Your task to perform on an android device: Empty the shopping cart on target.com. Search for apple airpods on target.com, select the first entry, and add it to the cart. Image 0: 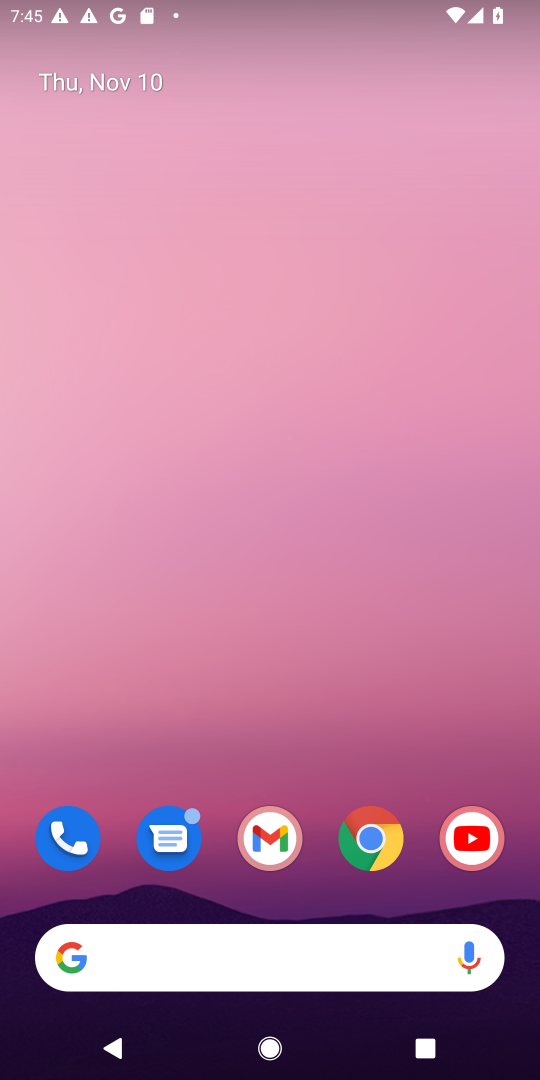
Step 0: drag from (338, 910) to (398, 205)
Your task to perform on an android device: Empty the shopping cart on target.com. Search for apple airpods on target.com, select the first entry, and add it to the cart. Image 1: 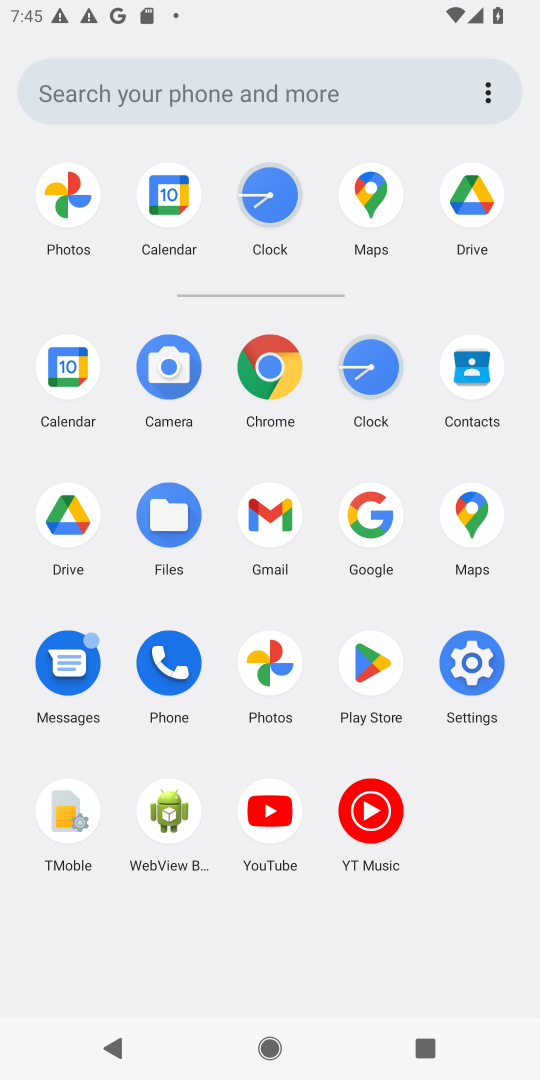
Step 1: click (266, 363)
Your task to perform on an android device: Empty the shopping cart on target.com. Search for apple airpods on target.com, select the first entry, and add it to the cart. Image 2: 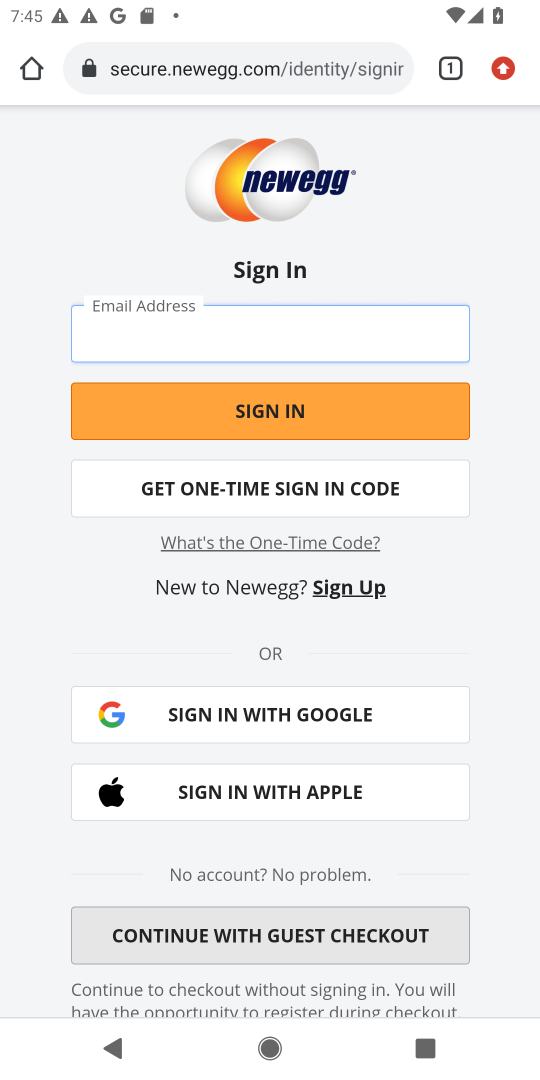
Step 2: click (219, 72)
Your task to perform on an android device: Empty the shopping cart on target.com. Search for apple airpods on target.com, select the first entry, and add it to the cart. Image 3: 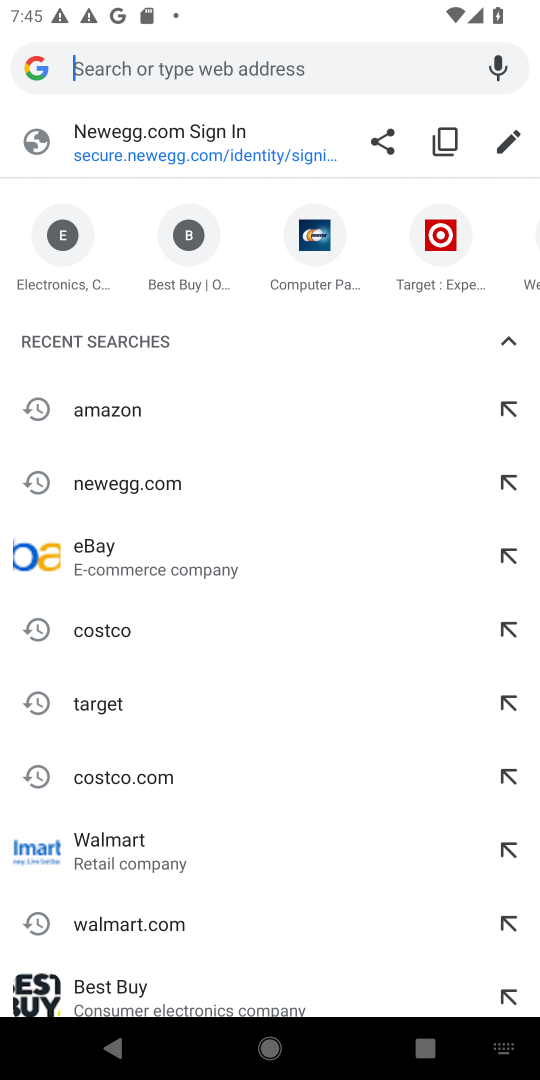
Step 3: type "target.com"
Your task to perform on an android device: Empty the shopping cart on target.com. Search for apple airpods on target.com, select the first entry, and add it to the cart. Image 4: 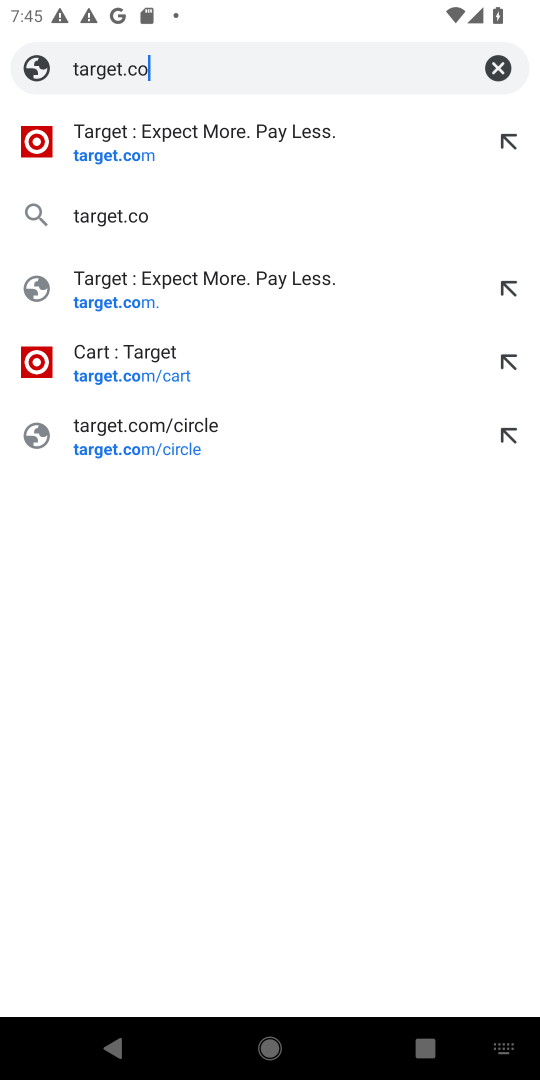
Step 4: press enter
Your task to perform on an android device: Empty the shopping cart on target.com. Search for apple airpods on target.com, select the first entry, and add it to the cart. Image 5: 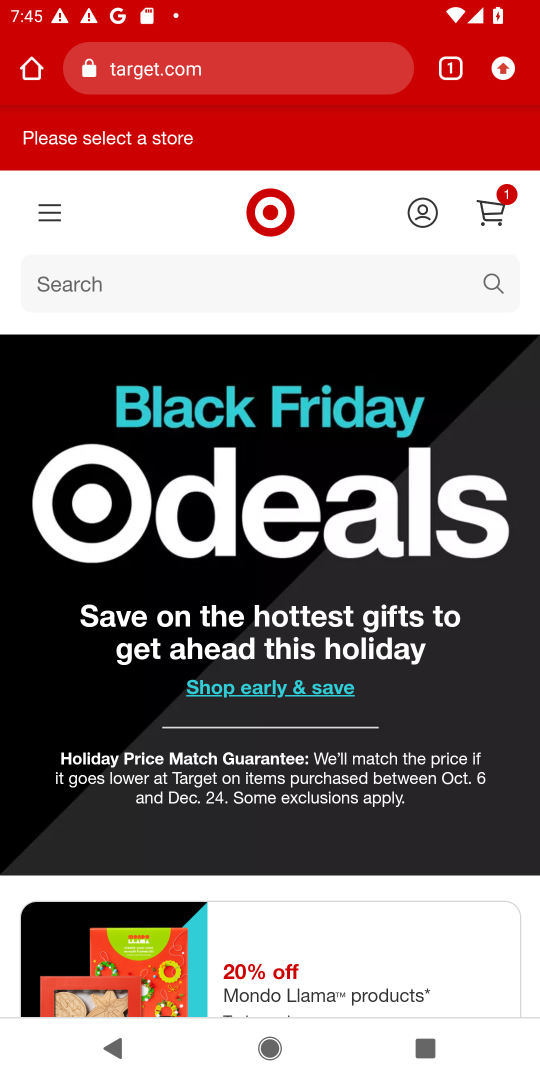
Step 5: click (491, 210)
Your task to perform on an android device: Empty the shopping cart on target.com. Search for apple airpods on target.com, select the first entry, and add it to the cart. Image 6: 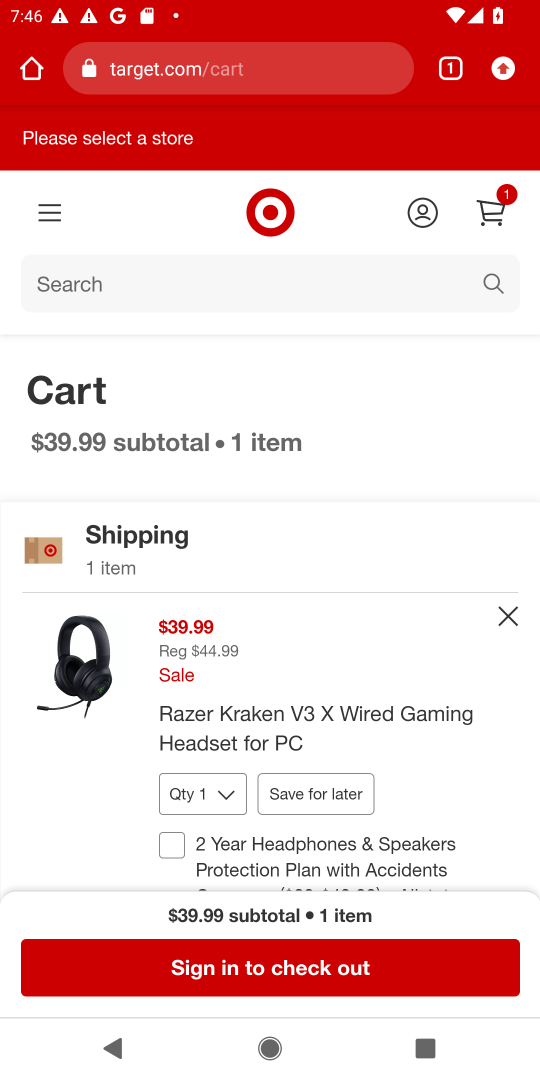
Step 6: click (508, 621)
Your task to perform on an android device: Empty the shopping cart on target.com. Search for apple airpods on target.com, select the first entry, and add it to the cart. Image 7: 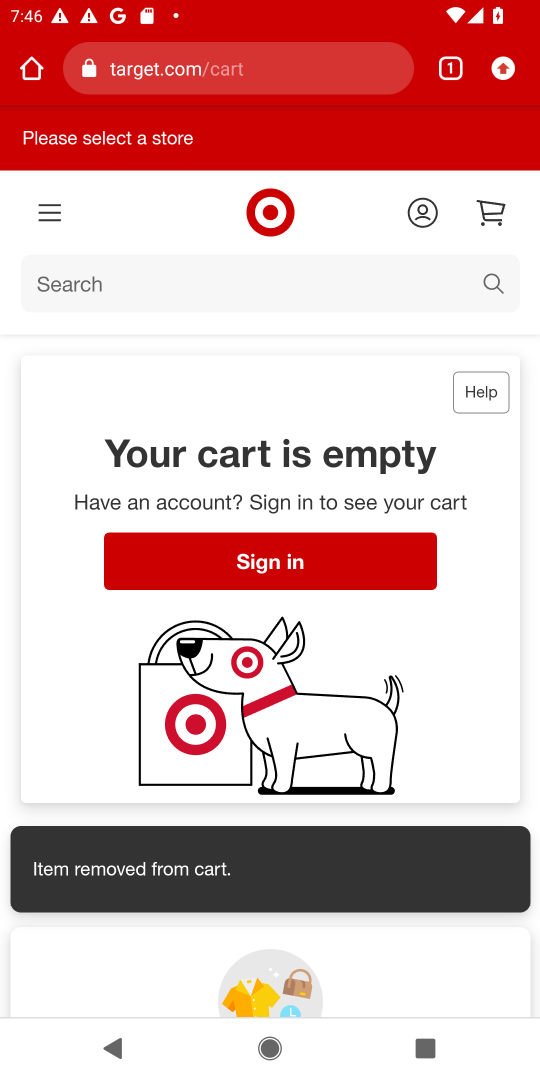
Step 7: click (259, 289)
Your task to perform on an android device: Empty the shopping cart on target.com. Search for apple airpods on target.com, select the first entry, and add it to the cart. Image 8: 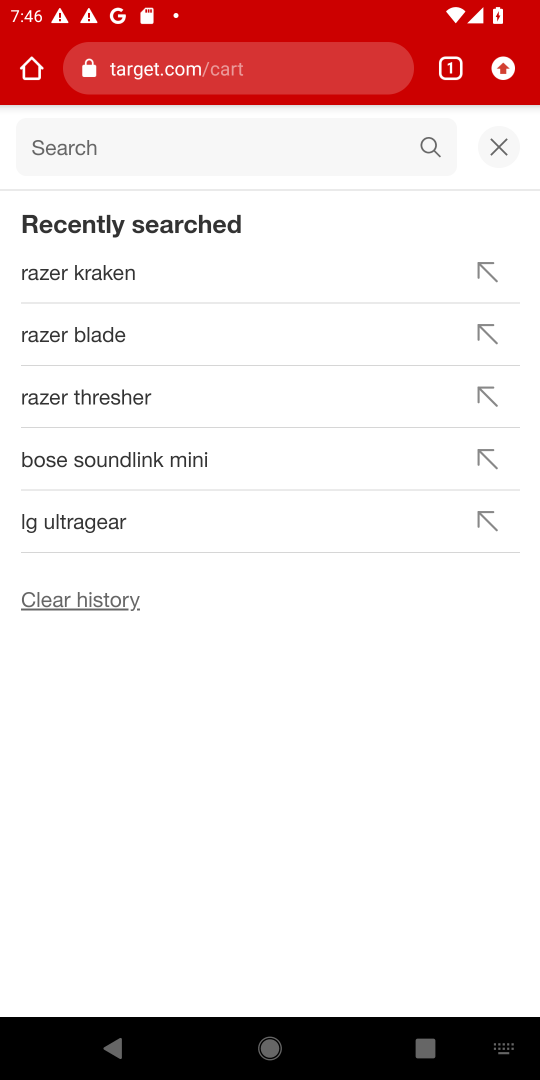
Step 8: type "apple airpods"
Your task to perform on an android device: Empty the shopping cart on target.com. Search for apple airpods on target.com, select the first entry, and add it to the cart. Image 9: 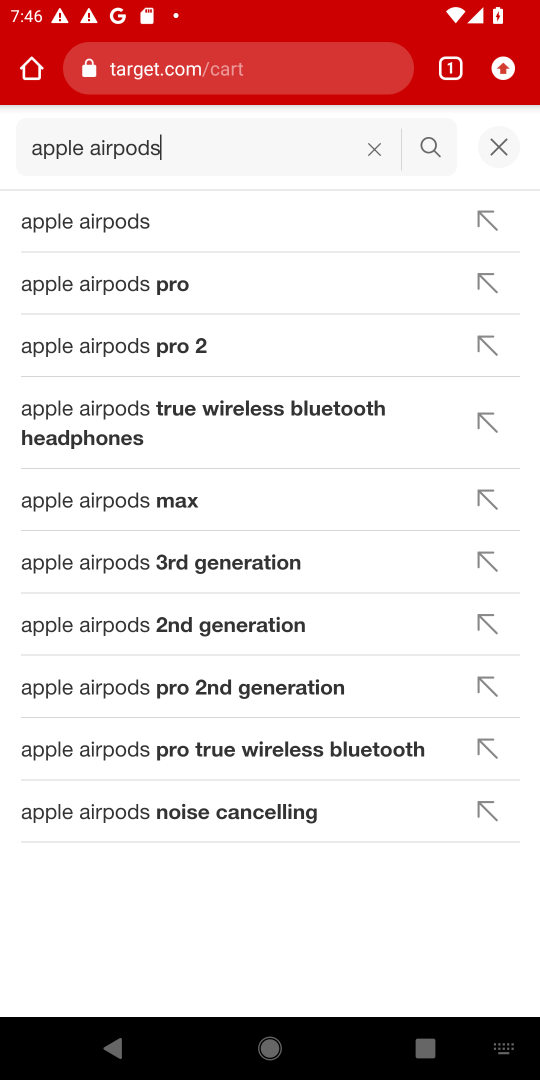
Step 9: press enter
Your task to perform on an android device: Empty the shopping cart on target.com. Search for apple airpods on target.com, select the first entry, and add it to the cart. Image 10: 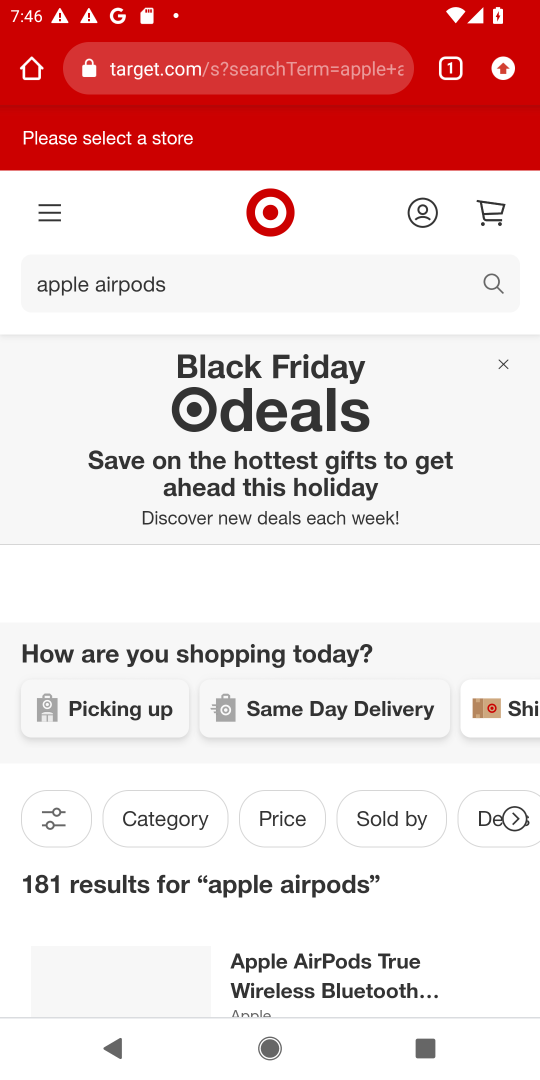
Step 10: drag from (277, 826) to (332, 244)
Your task to perform on an android device: Empty the shopping cart on target.com. Search for apple airpods on target.com, select the first entry, and add it to the cart. Image 11: 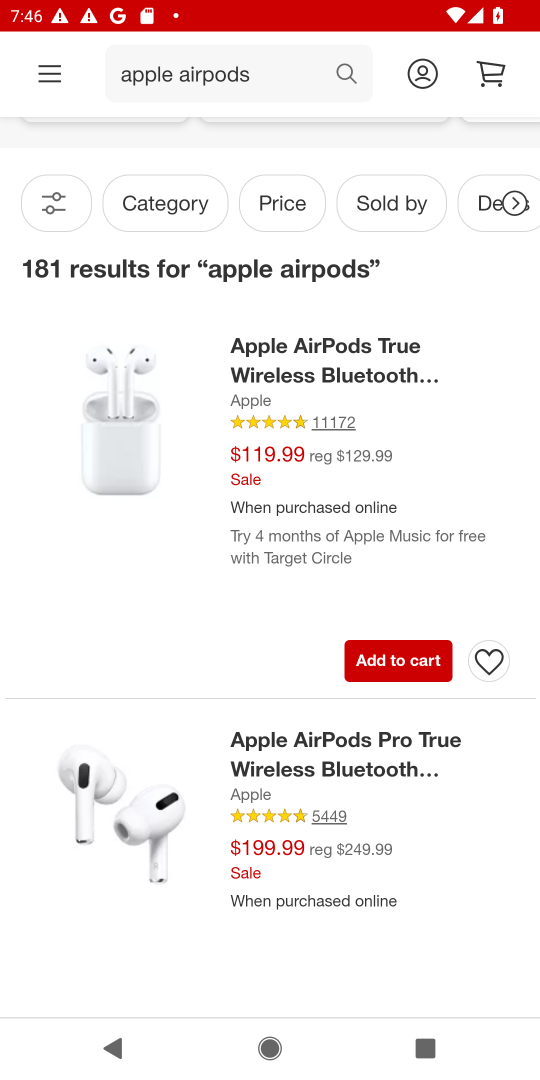
Step 11: click (404, 656)
Your task to perform on an android device: Empty the shopping cart on target.com. Search for apple airpods on target.com, select the first entry, and add it to the cart. Image 12: 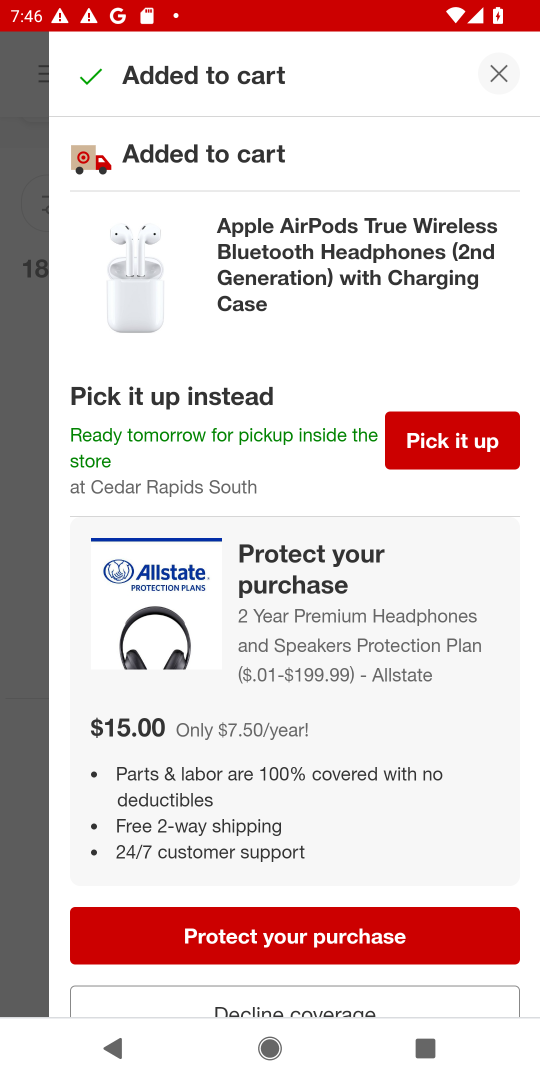
Step 12: task complete